Your task to perform on an android device: Set the phone to "Do not disturb". Image 0: 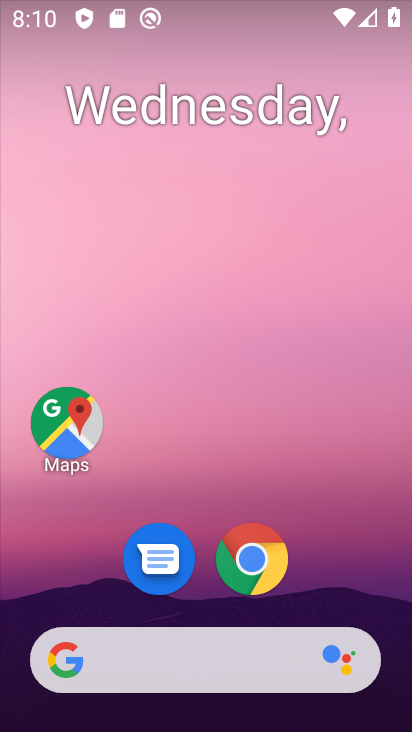
Step 0: drag from (292, 9) to (266, 495)
Your task to perform on an android device: Set the phone to "Do not disturb". Image 1: 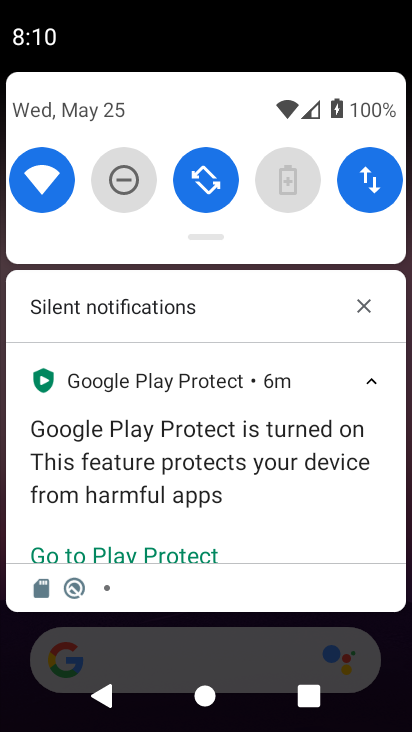
Step 1: drag from (265, 223) to (252, 697)
Your task to perform on an android device: Set the phone to "Do not disturb". Image 2: 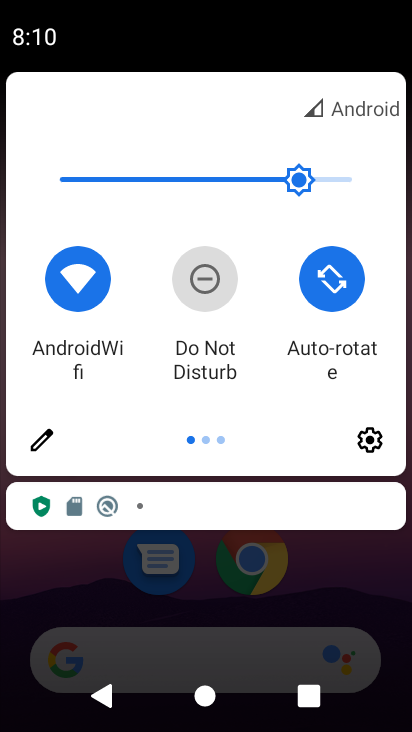
Step 2: click (192, 278)
Your task to perform on an android device: Set the phone to "Do not disturb". Image 3: 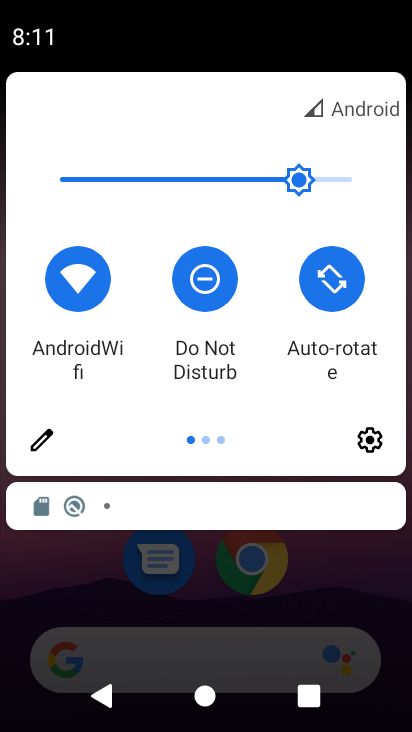
Step 3: task complete